Your task to perform on an android device: Search for razer huntsman on costco.com, select the first entry, and add it to the cart. Image 0: 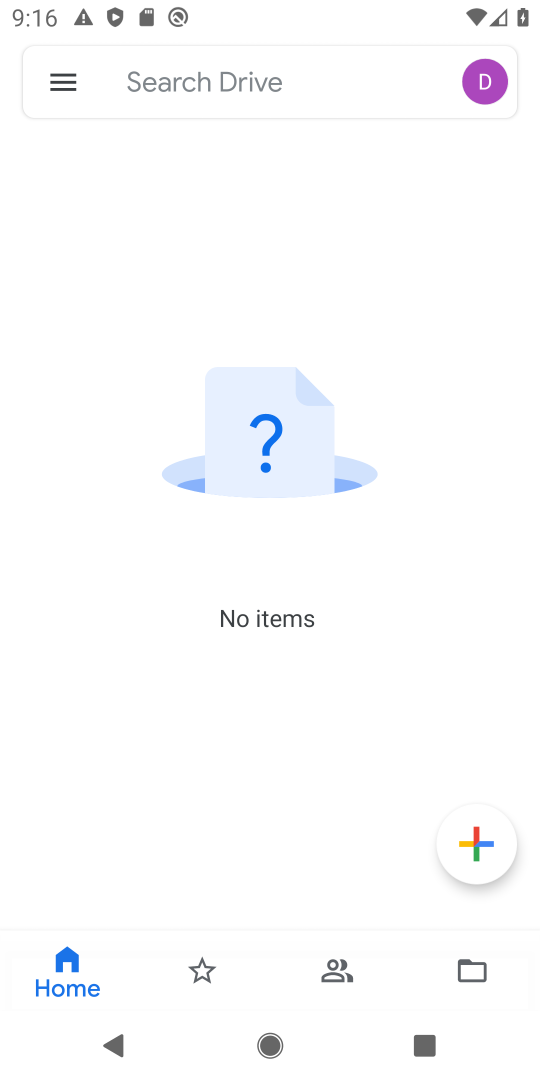
Step 0: press home button
Your task to perform on an android device: Search for razer huntsman on costco.com, select the first entry, and add it to the cart. Image 1: 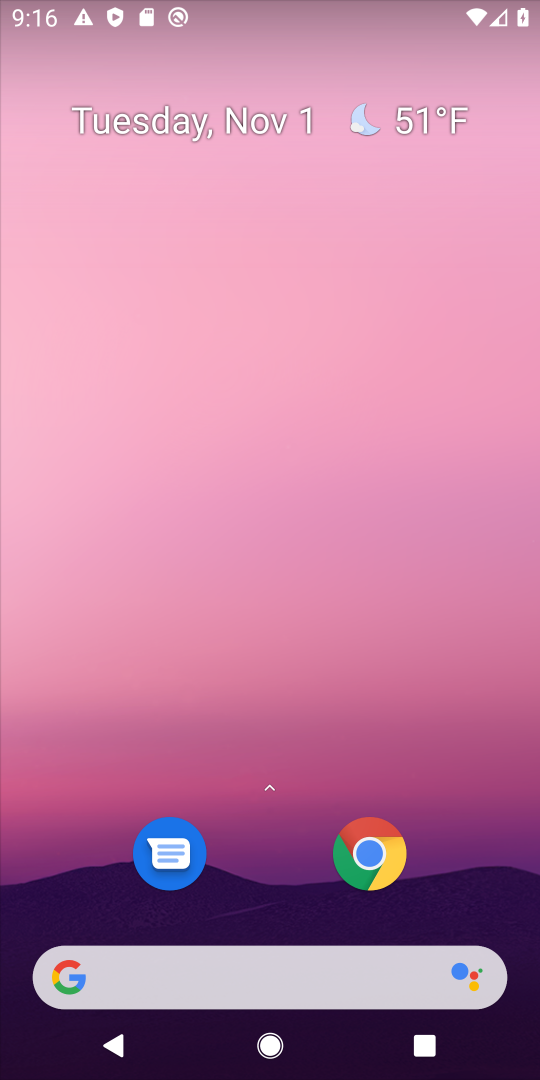
Step 1: click (309, 964)
Your task to perform on an android device: Search for razer huntsman on costco.com, select the first entry, and add it to the cart. Image 2: 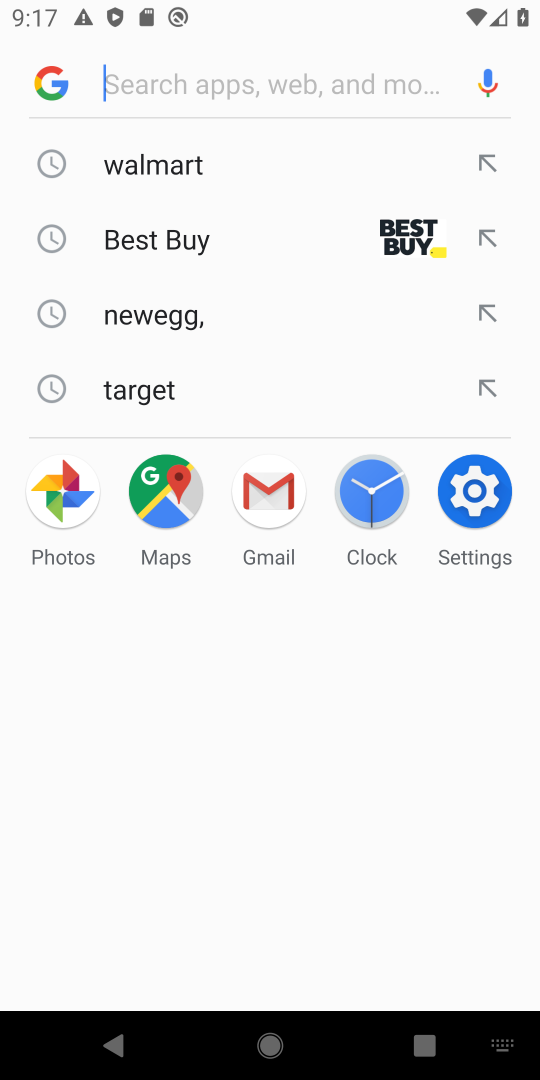
Step 2: type "costco"
Your task to perform on an android device: Search for razer huntsman on costco.com, select the first entry, and add it to the cart. Image 3: 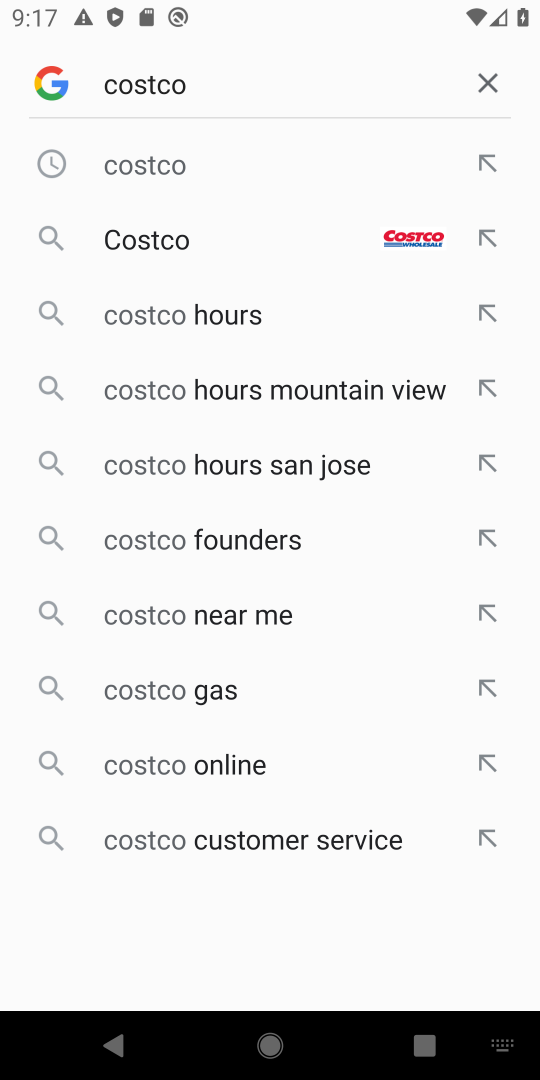
Step 3: click (144, 159)
Your task to perform on an android device: Search for razer huntsman on costco.com, select the first entry, and add it to the cart. Image 4: 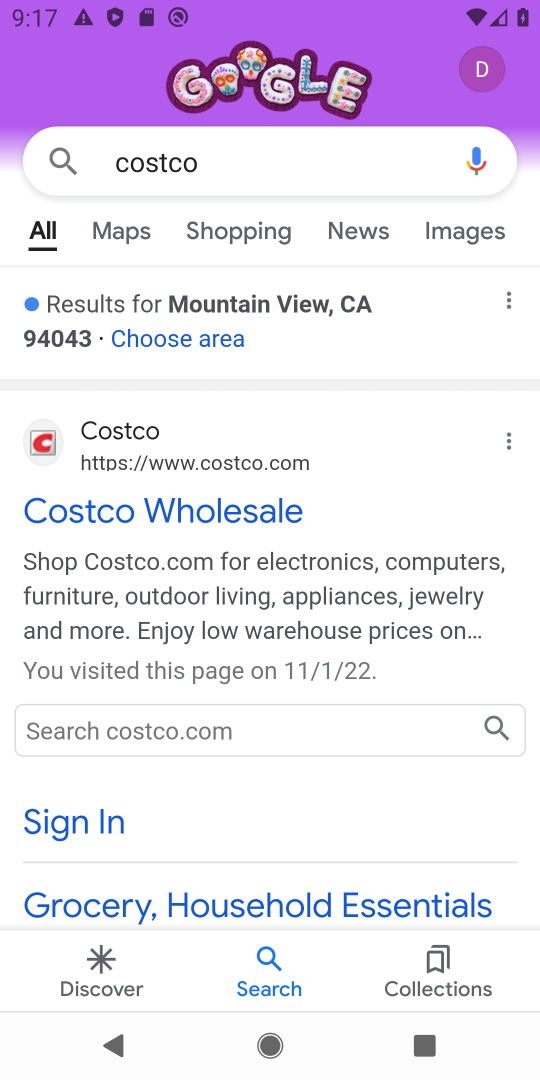
Step 4: click (227, 521)
Your task to perform on an android device: Search for razer huntsman on costco.com, select the first entry, and add it to the cart. Image 5: 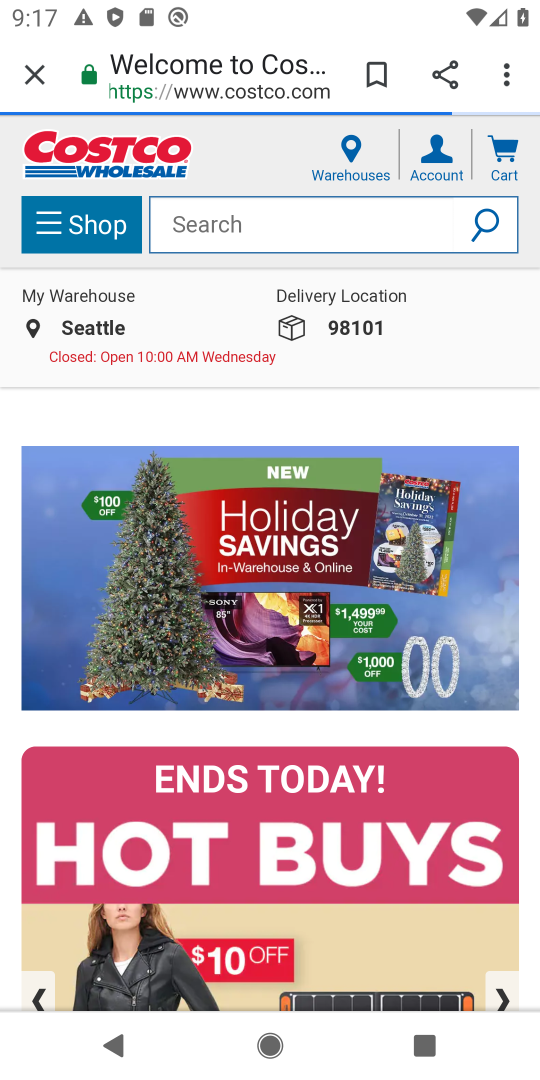
Step 5: click (259, 237)
Your task to perform on an android device: Search for razer huntsman on costco.com, select the first entry, and add it to the cart. Image 6: 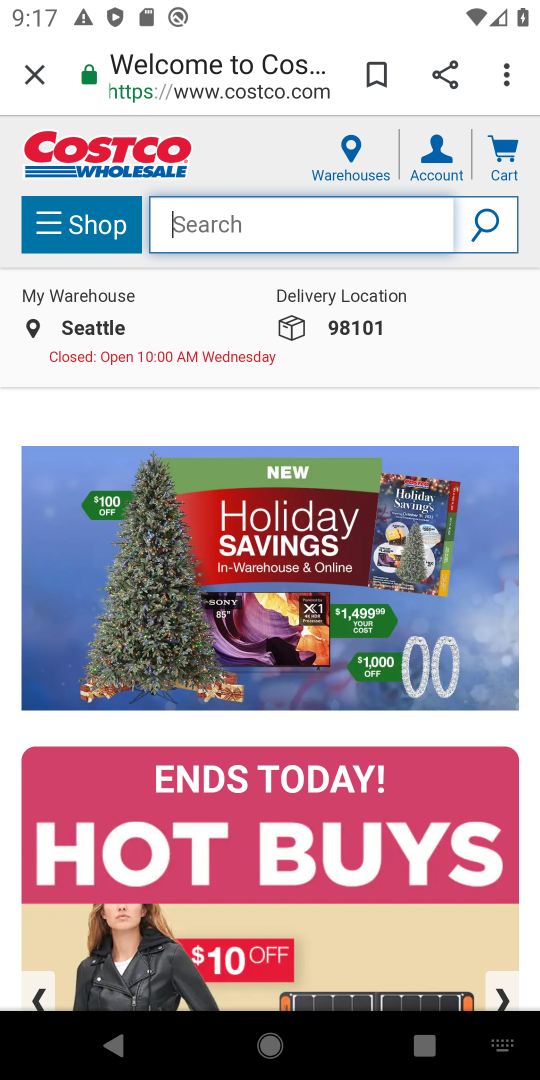
Step 6: type "razer huntsman"
Your task to perform on an android device: Search for razer huntsman on costco.com, select the first entry, and add it to the cart. Image 7: 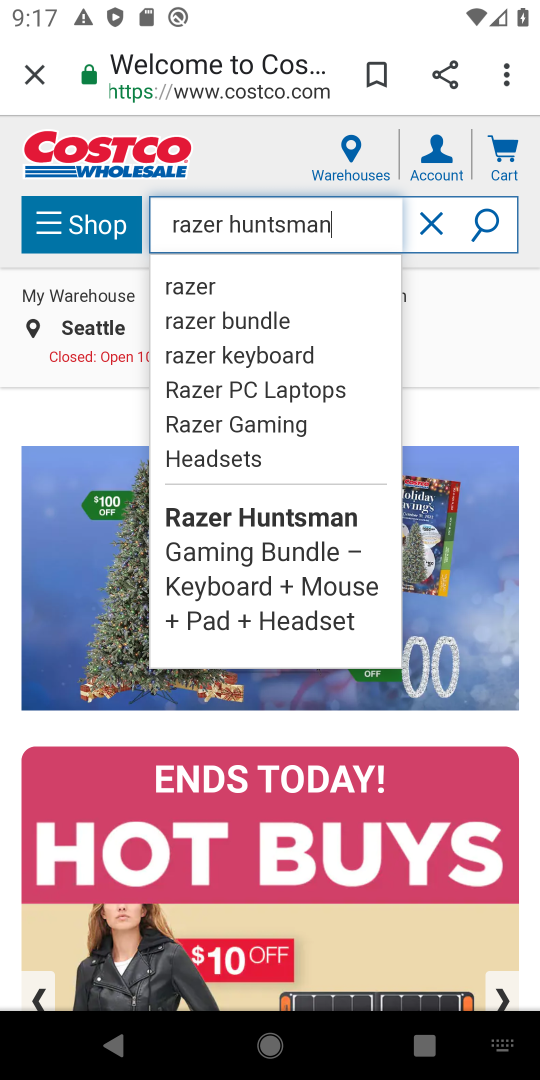
Step 7: click (492, 220)
Your task to perform on an android device: Search for razer huntsman on costco.com, select the first entry, and add it to the cart. Image 8: 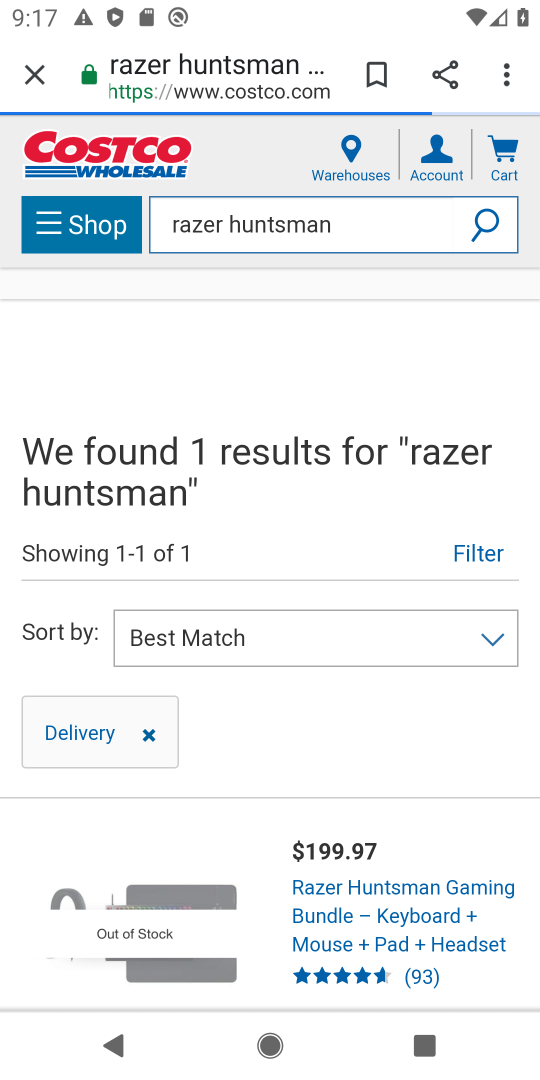
Step 8: task complete